Your task to perform on an android device: turn notification dots off Image 0: 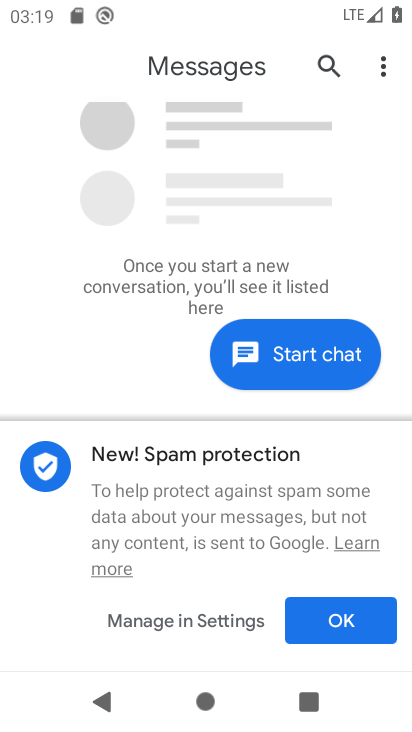
Step 0: press home button
Your task to perform on an android device: turn notification dots off Image 1: 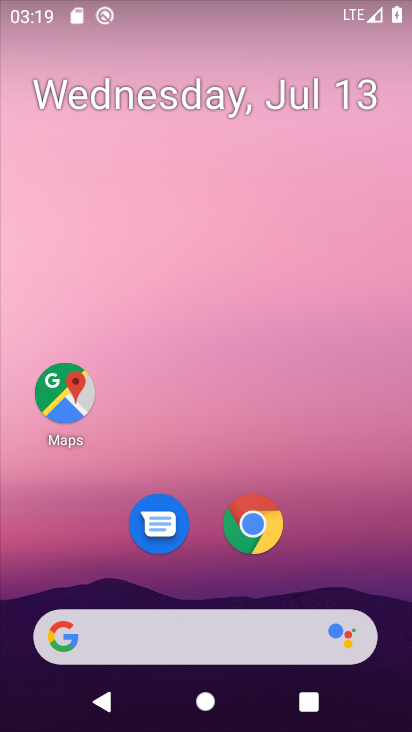
Step 1: drag from (336, 561) to (291, 27)
Your task to perform on an android device: turn notification dots off Image 2: 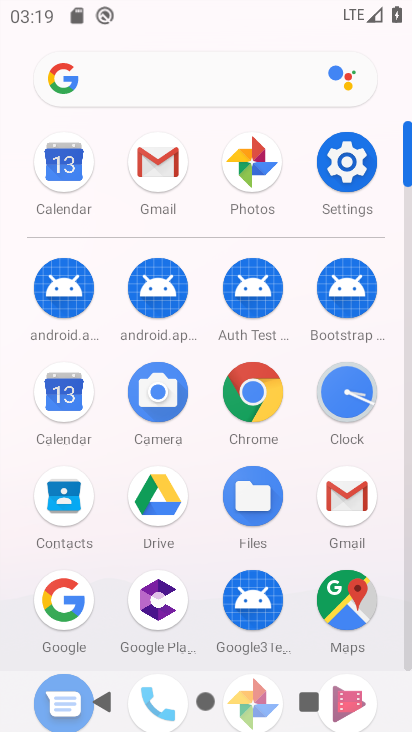
Step 2: click (352, 160)
Your task to perform on an android device: turn notification dots off Image 3: 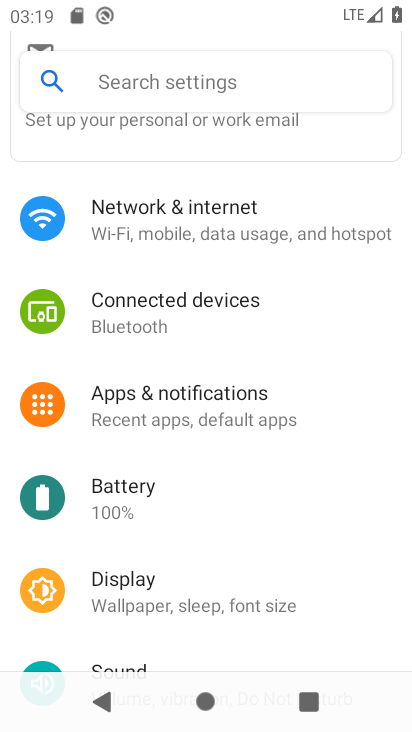
Step 3: click (201, 408)
Your task to perform on an android device: turn notification dots off Image 4: 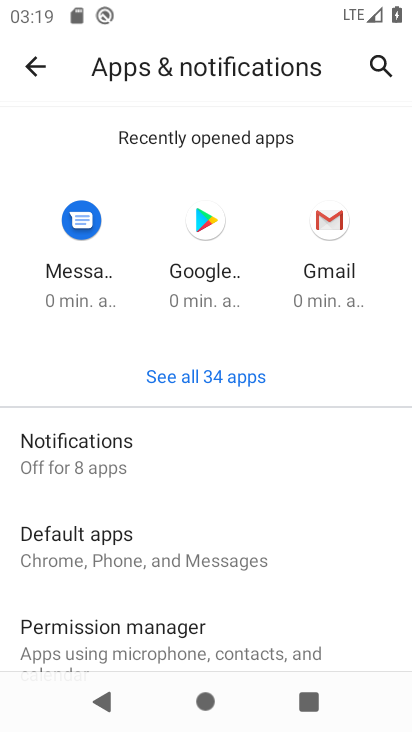
Step 4: click (112, 449)
Your task to perform on an android device: turn notification dots off Image 5: 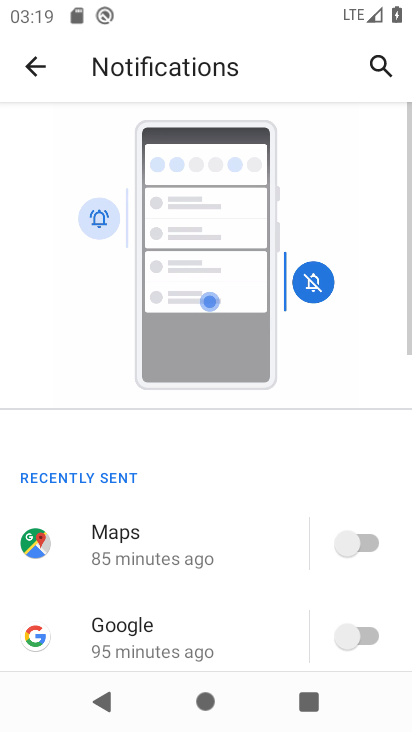
Step 5: drag from (252, 604) to (241, 19)
Your task to perform on an android device: turn notification dots off Image 6: 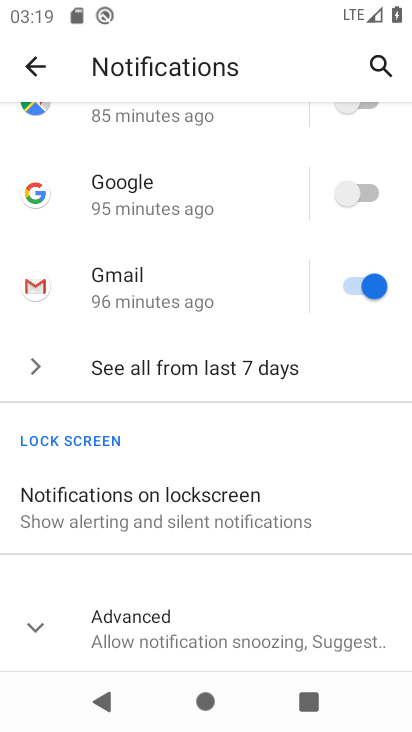
Step 6: click (38, 626)
Your task to perform on an android device: turn notification dots off Image 7: 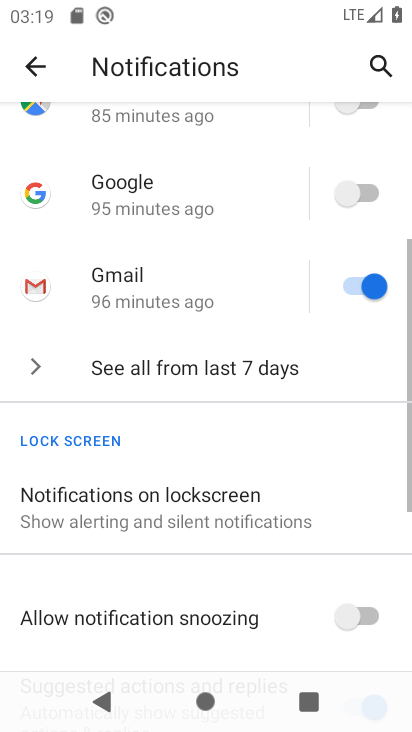
Step 7: drag from (231, 556) to (245, 187)
Your task to perform on an android device: turn notification dots off Image 8: 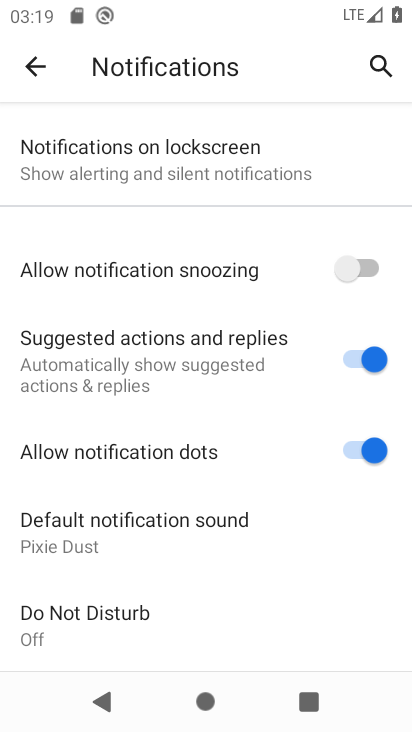
Step 8: click (352, 446)
Your task to perform on an android device: turn notification dots off Image 9: 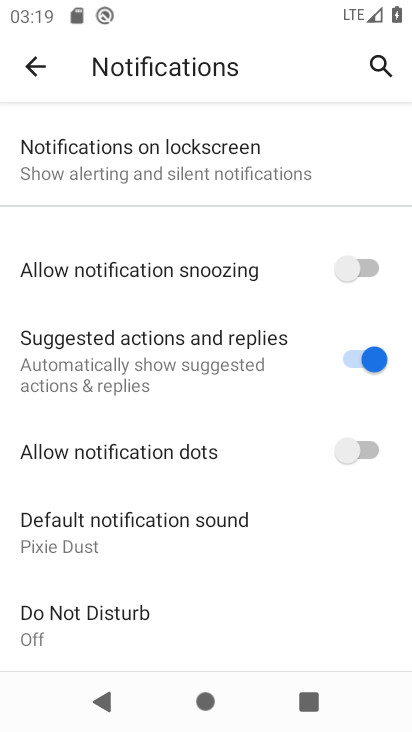
Step 9: task complete